Your task to perform on an android device: Do I have any events today? Image 0: 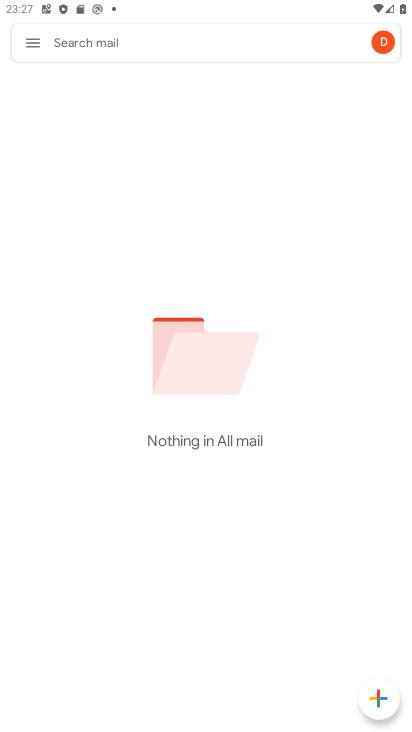
Step 0: press home button
Your task to perform on an android device: Do I have any events today? Image 1: 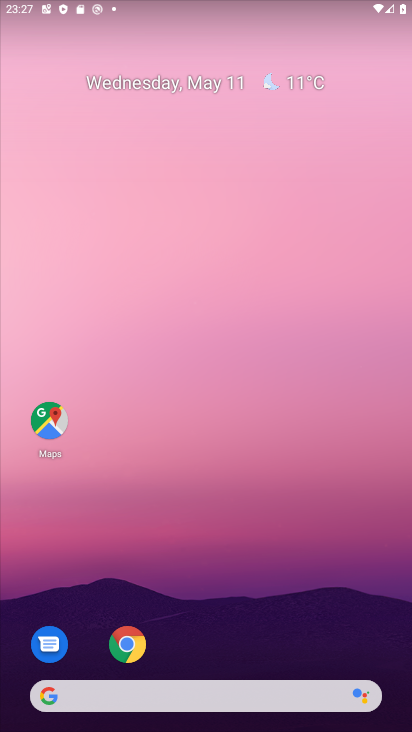
Step 1: drag from (205, 650) to (201, 115)
Your task to perform on an android device: Do I have any events today? Image 2: 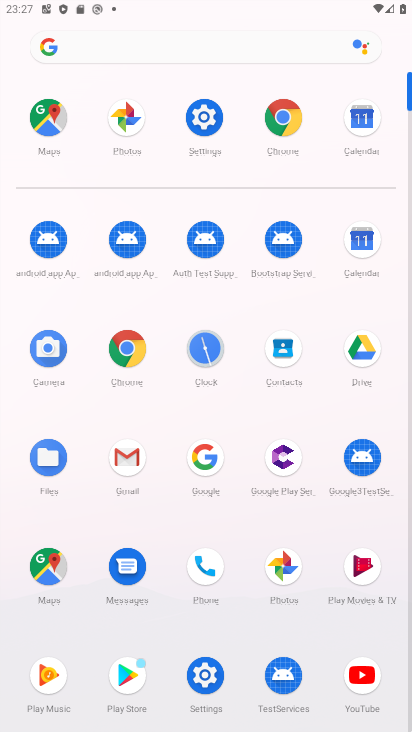
Step 2: click (361, 238)
Your task to perform on an android device: Do I have any events today? Image 3: 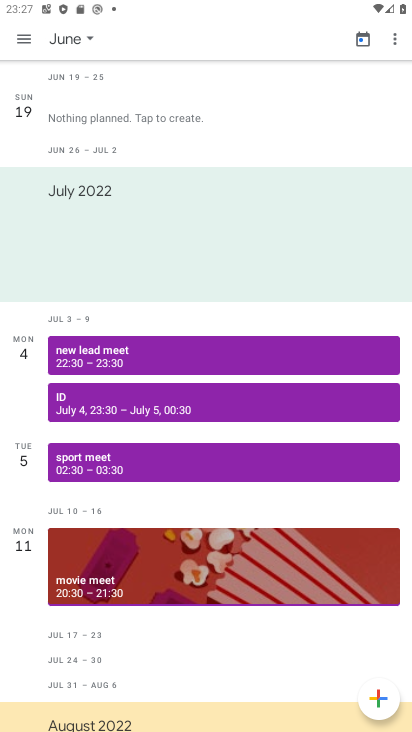
Step 3: click (19, 37)
Your task to perform on an android device: Do I have any events today? Image 4: 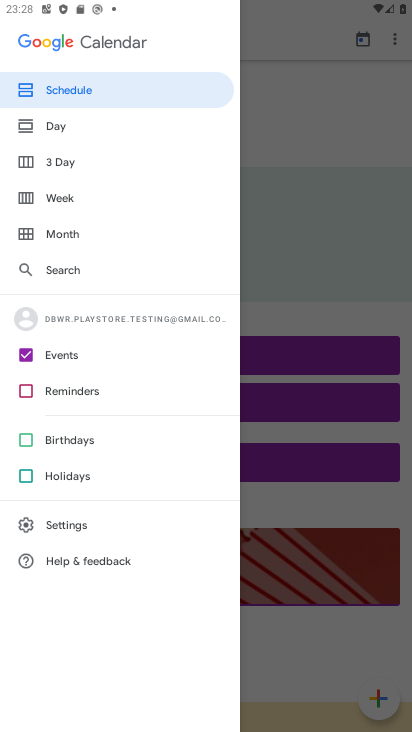
Step 4: click (58, 132)
Your task to perform on an android device: Do I have any events today? Image 5: 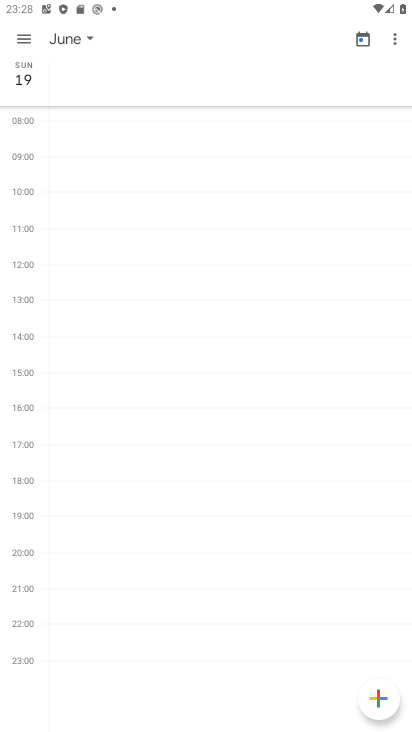
Step 5: click (91, 38)
Your task to perform on an android device: Do I have any events today? Image 6: 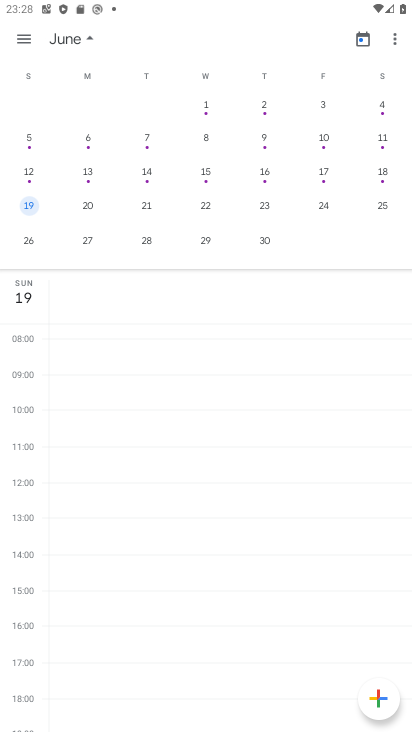
Step 6: drag from (40, 158) to (410, 172)
Your task to perform on an android device: Do I have any events today? Image 7: 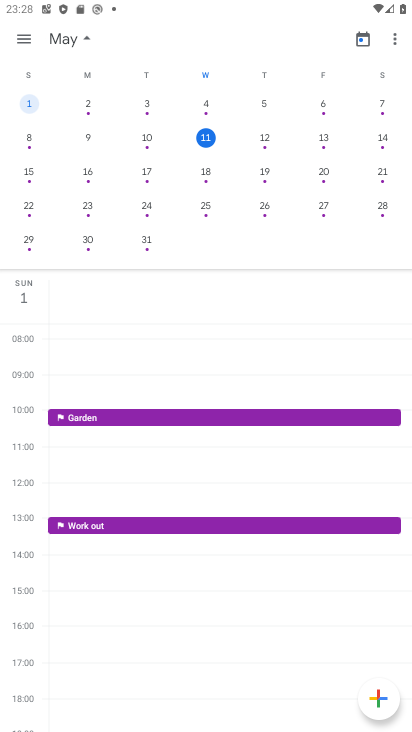
Step 7: click (202, 135)
Your task to perform on an android device: Do I have any events today? Image 8: 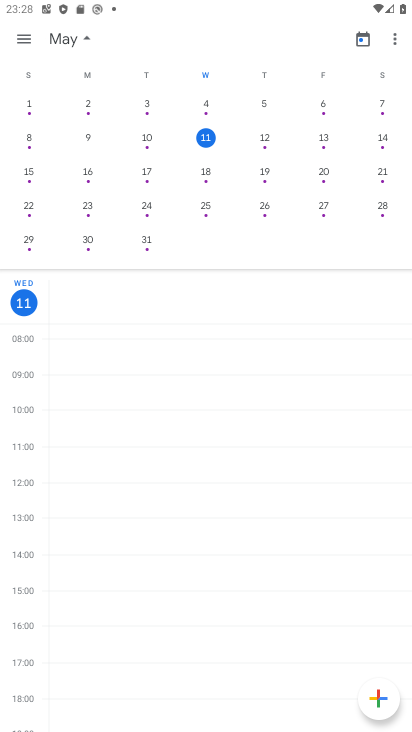
Step 8: click (89, 36)
Your task to perform on an android device: Do I have any events today? Image 9: 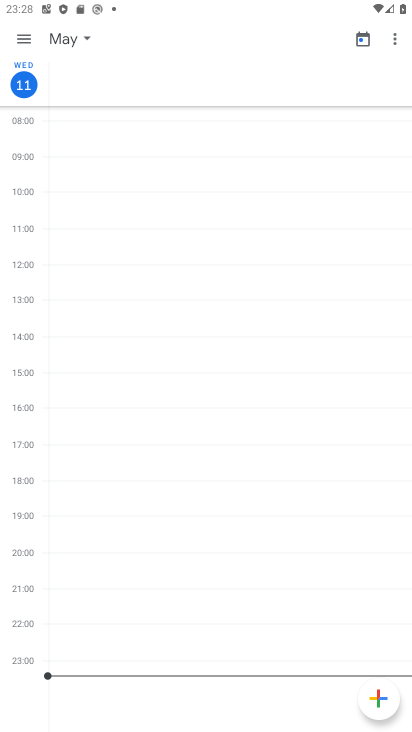
Step 9: click (27, 37)
Your task to perform on an android device: Do I have any events today? Image 10: 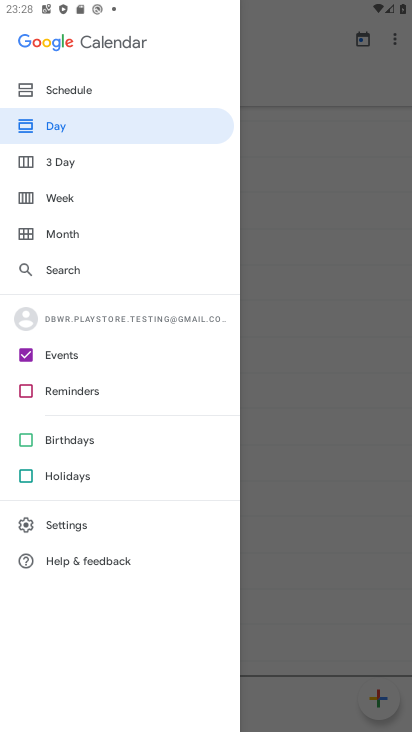
Step 10: click (77, 87)
Your task to perform on an android device: Do I have any events today? Image 11: 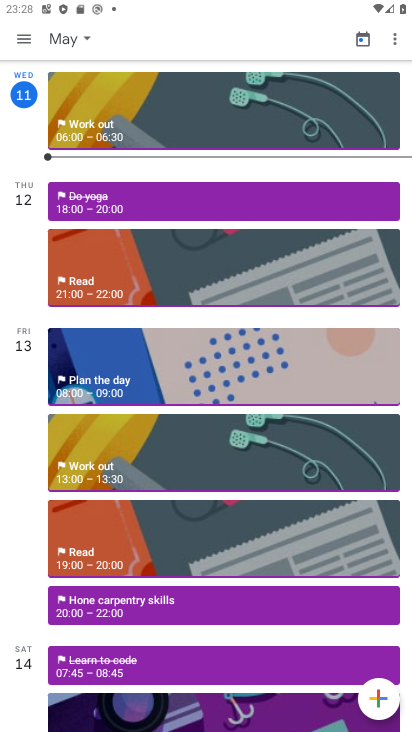
Step 11: task complete